Your task to perform on an android device: Go to battery settings Image 0: 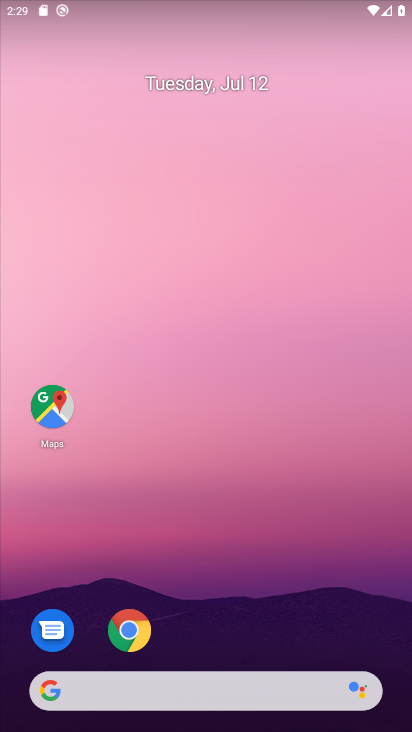
Step 0: drag from (211, 640) to (209, 102)
Your task to perform on an android device: Go to battery settings Image 1: 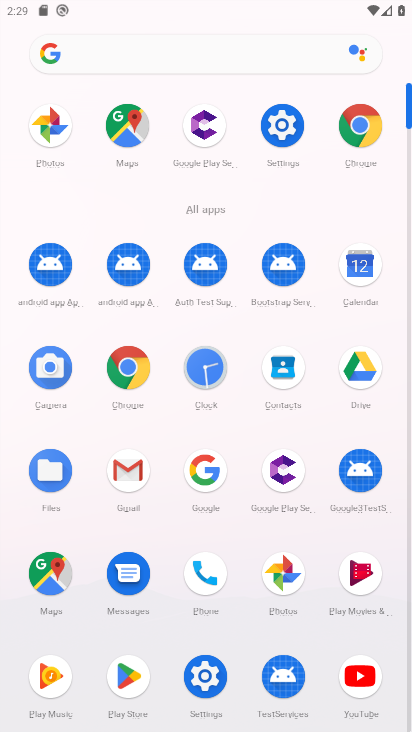
Step 1: click (278, 119)
Your task to perform on an android device: Go to battery settings Image 2: 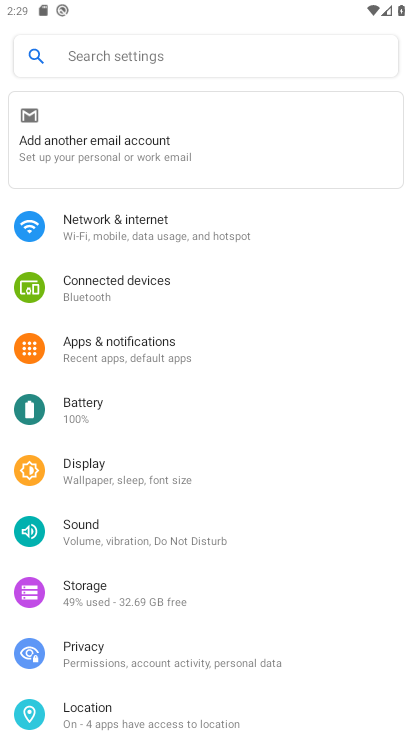
Step 2: click (121, 405)
Your task to perform on an android device: Go to battery settings Image 3: 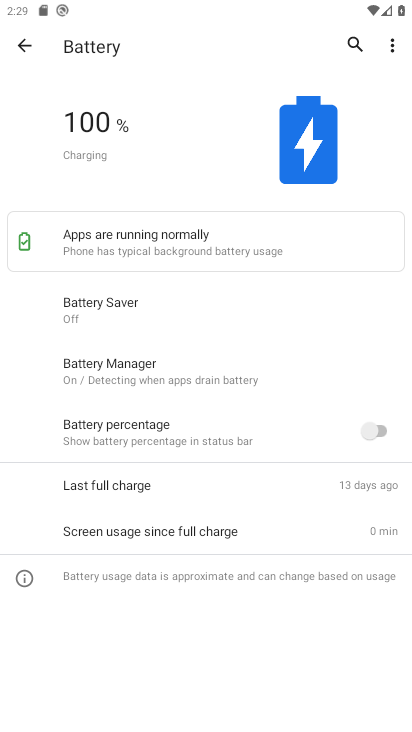
Step 3: task complete